Your task to perform on an android device: change the clock display to show seconds Image 0: 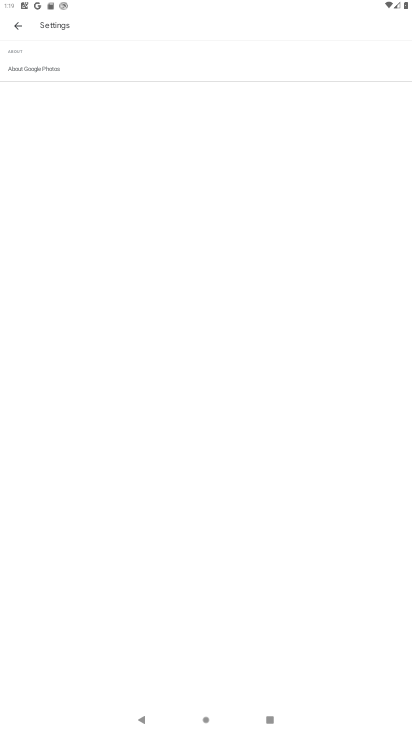
Step 0: press home button
Your task to perform on an android device: change the clock display to show seconds Image 1: 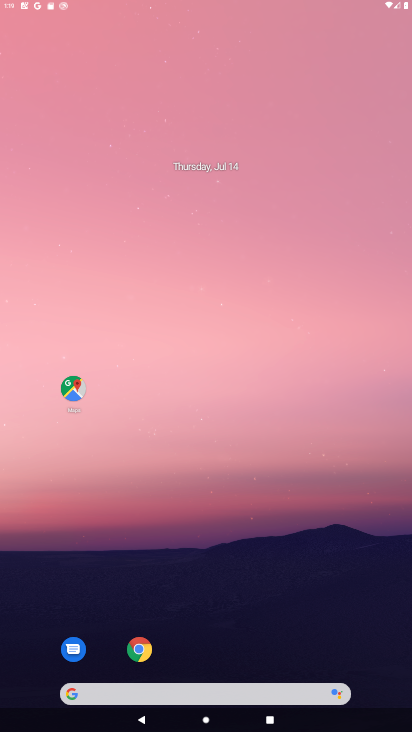
Step 1: drag from (206, 679) to (262, 123)
Your task to perform on an android device: change the clock display to show seconds Image 2: 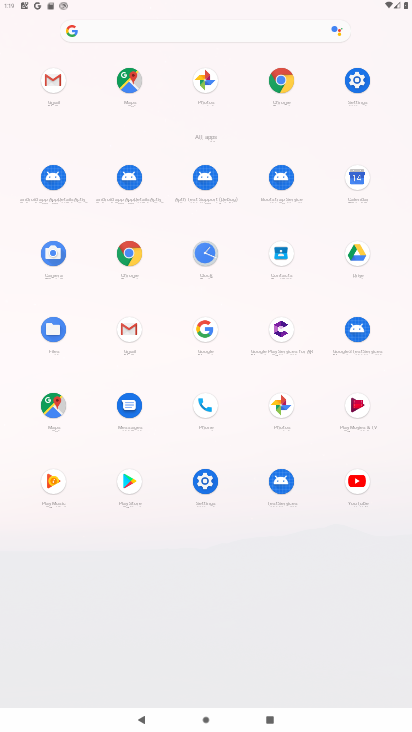
Step 2: click (213, 257)
Your task to perform on an android device: change the clock display to show seconds Image 3: 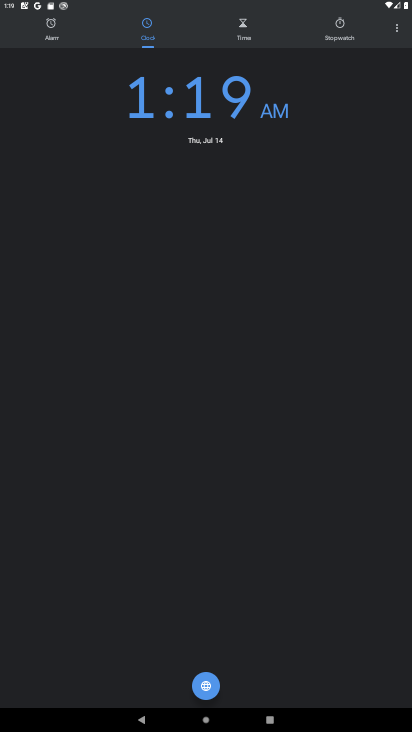
Step 3: click (393, 28)
Your task to perform on an android device: change the clock display to show seconds Image 4: 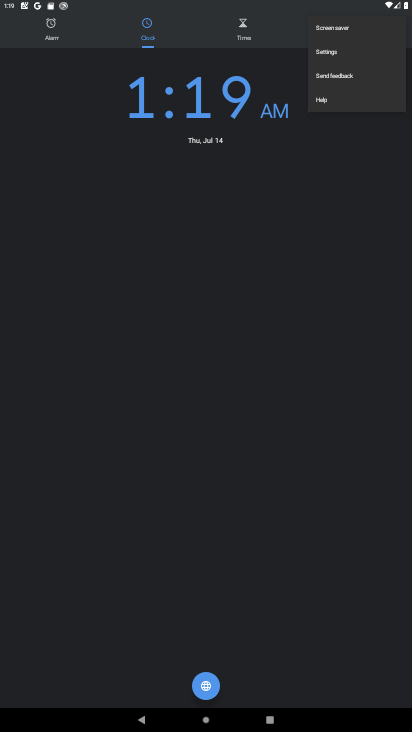
Step 4: click (331, 52)
Your task to perform on an android device: change the clock display to show seconds Image 5: 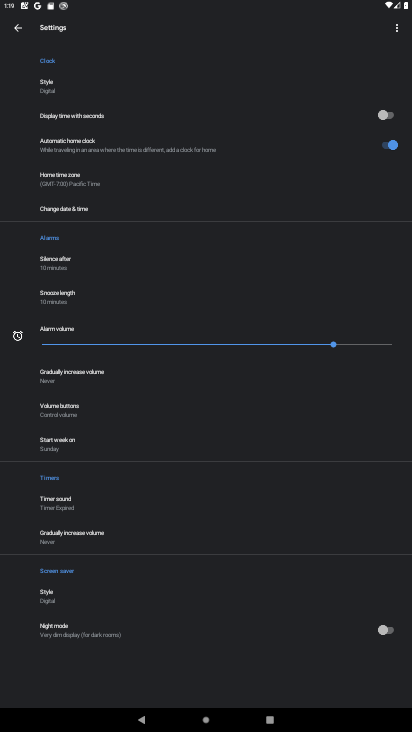
Step 5: click (387, 115)
Your task to perform on an android device: change the clock display to show seconds Image 6: 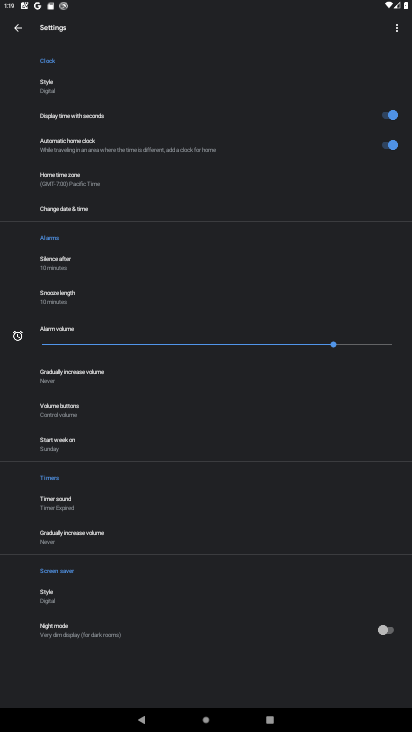
Step 6: task complete